Your task to perform on an android device: Set the phone to "Do not disturb". Image 0: 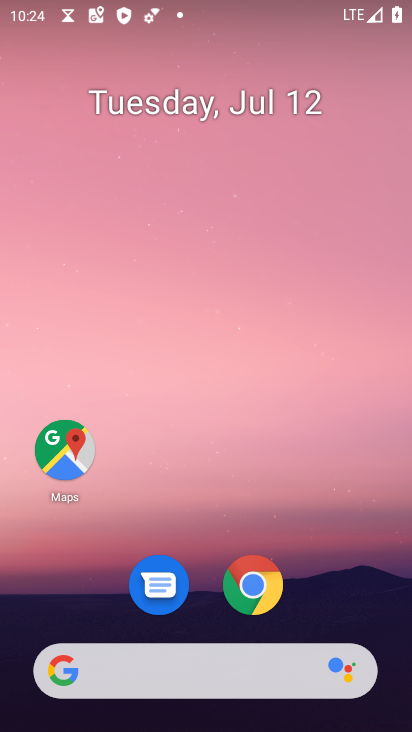
Step 0: press home button
Your task to perform on an android device: Set the phone to "Do not disturb". Image 1: 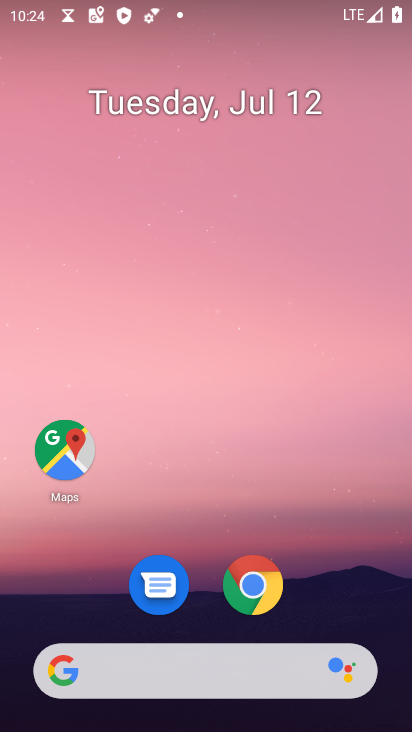
Step 1: drag from (191, 606) to (276, 172)
Your task to perform on an android device: Set the phone to "Do not disturb". Image 2: 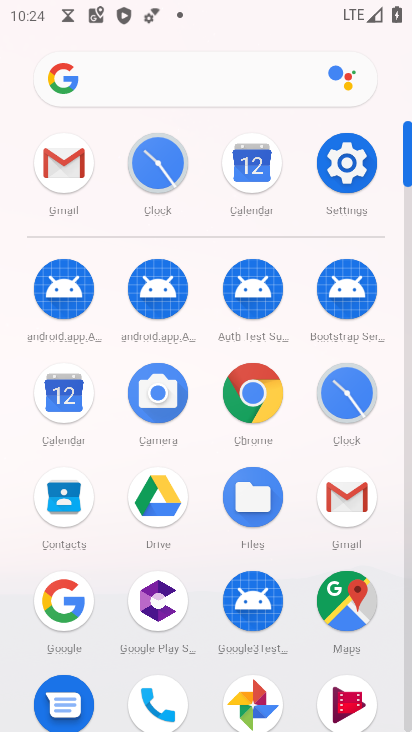
Step 2: click (335, 168)
Your task to perform on an android device: Set the phone to "Do not disturb". Image 3: 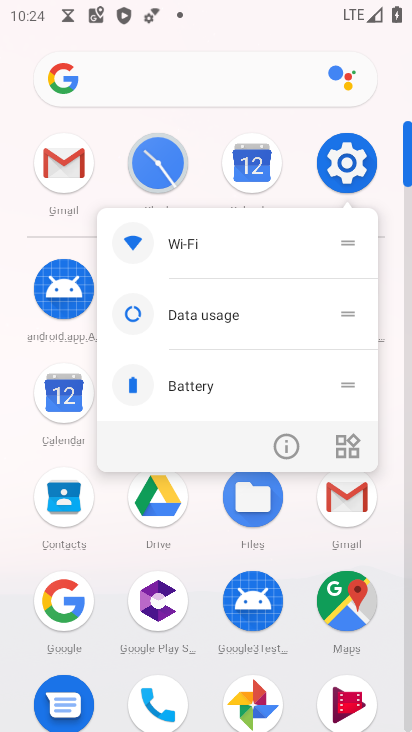
Step 3: click (351, 175)
Your task to perform on an android device: Set the phone to "Do not disturb". Image 4: 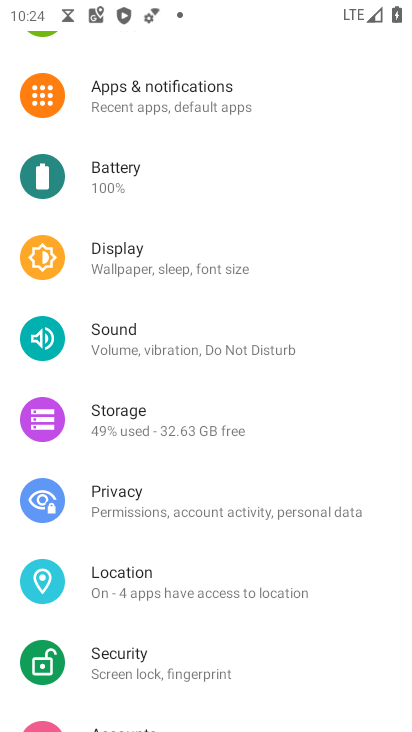
Step 4: click (208, 346)
Your task to perform on an android device: Set the phone to "Do not disturb". Image 5: 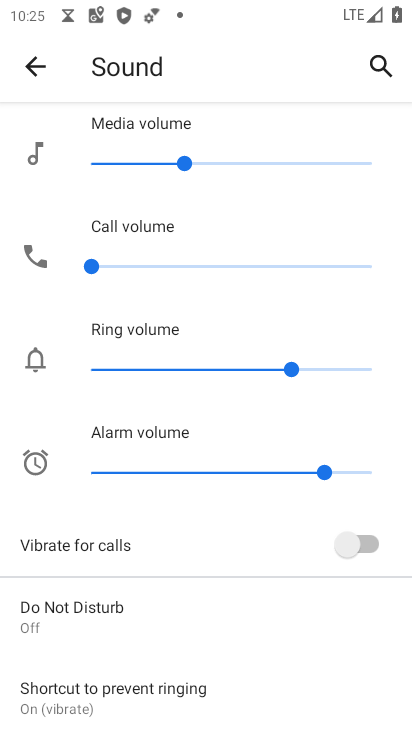
Step 5: click (98, 605)
Your task to perform on an android device: Set the phone to "Do not disturb". Image 6: 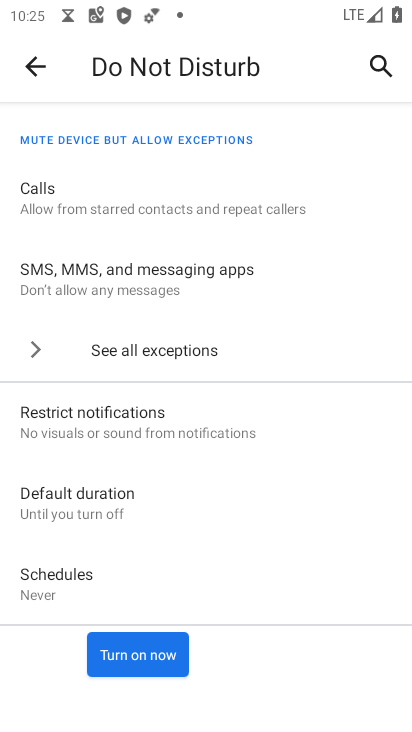
Step 6: click (149, 659)
Your task to perform on an android device: Set the phone to "Do not disturb". Image 7: 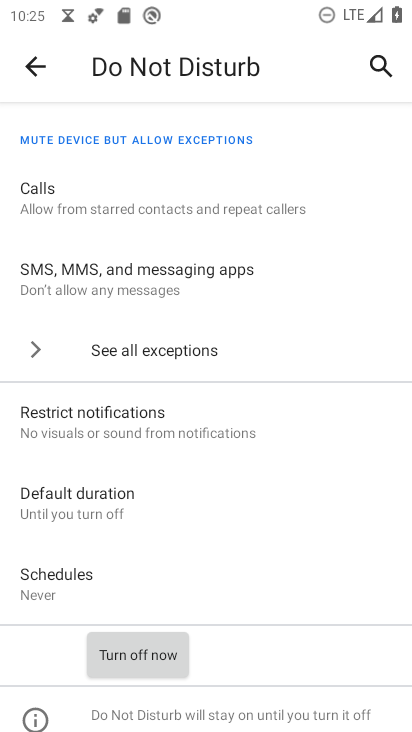
Step 7: task complete